Your task to perform on an android device: make emails show in primary in the gmail app Image 0: 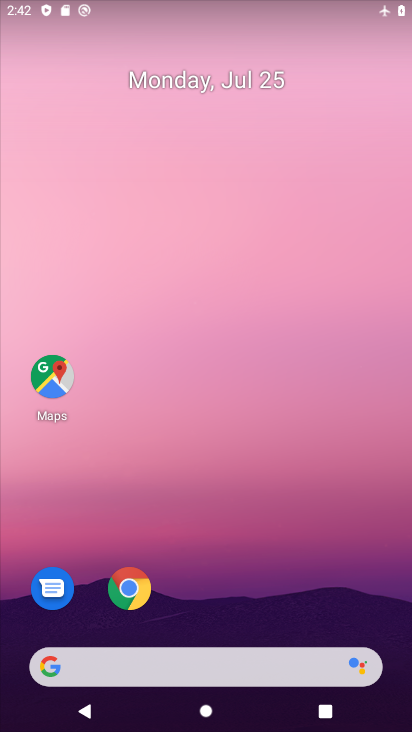
Step 0: drag from (230, 714) to (258, 48)
Your task to perform on an android device: make emails show in primary in the gmail app Image 1: 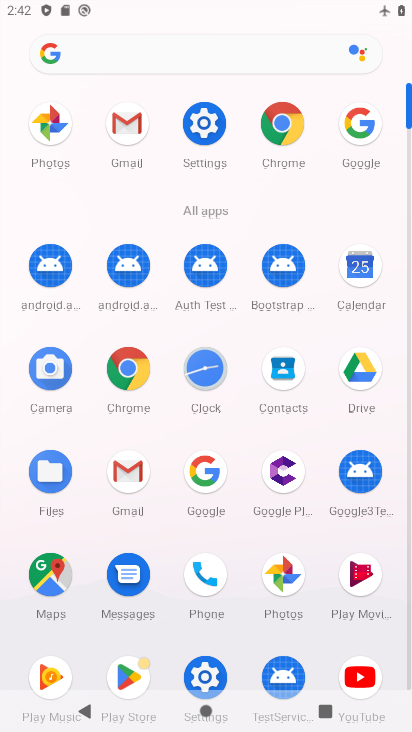
Step 1: click (138, 468)
Your task to perform on an android device: make emails show in primary in the gmail app Image 2: 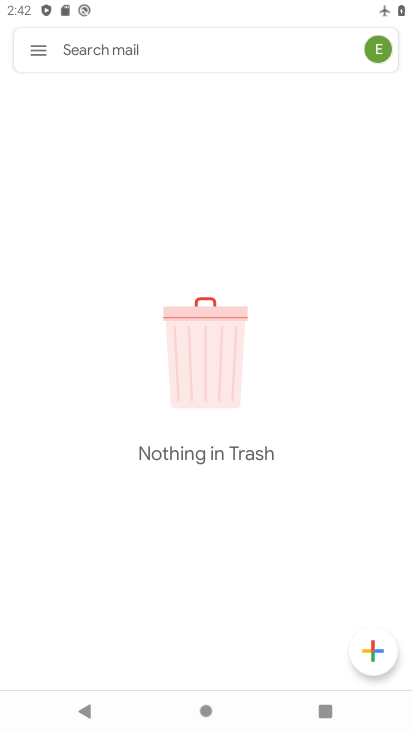
Step 2: click (35, 53)
Your task to perform on an android device: make emails show in primary in the gmail app Image 3: 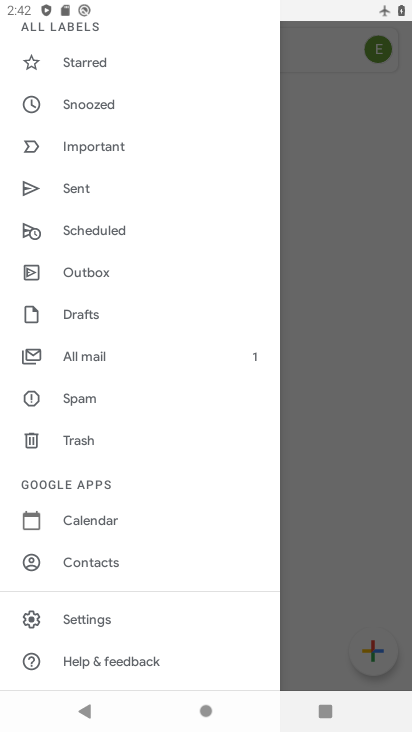
Step 3: click (95, 622)
Your task to perform on an android device: make emails show in primary in the gmail app Image 4: 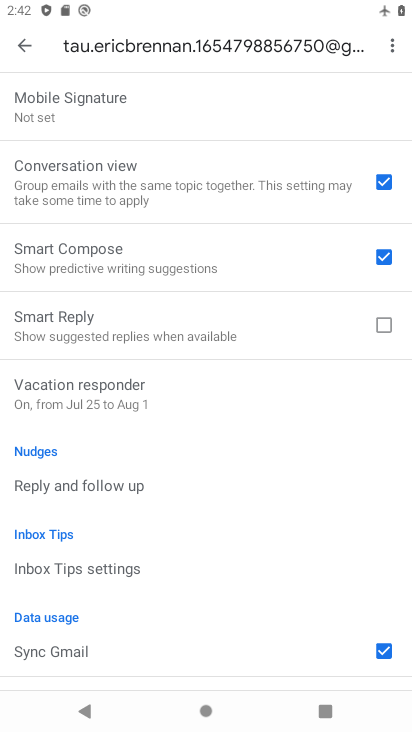
Step 4: task complete